Your task to perform on an android device: Search for a 100 ft extension cord Image 0: 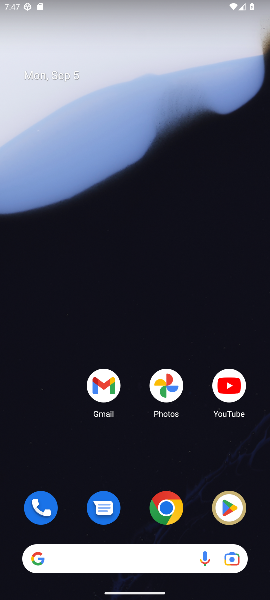
Step 0: click (162, 512)
Your task to perform on an android device: Search for a 100 ft extension cord Image 1: 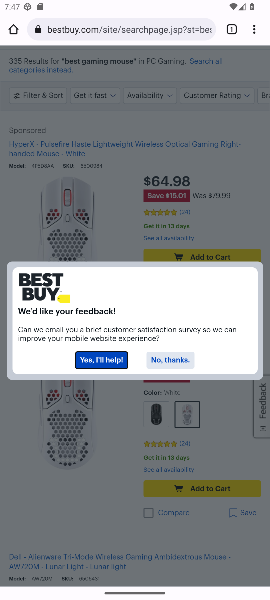
Step 1: click (168, 365)
Your task to perform on an android device: Search for a 100 ft extension cord Image 2: 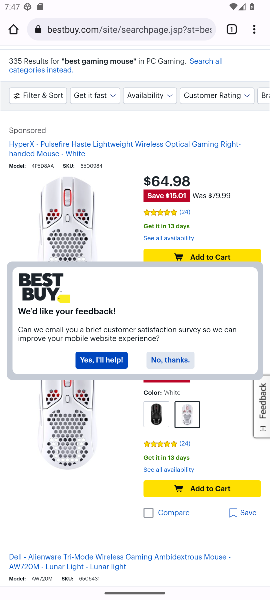
Step 2: click (114, 25)
Your task to perform on an android device: Search for a 100 ft extension cord Image 3: 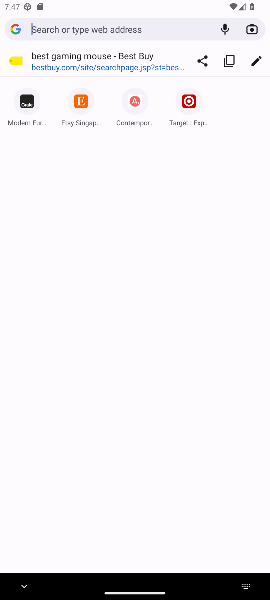
Step 3: type "100 ft extension cord"
Your task to perform on an android device: Search for a 100 ft extension cord Image 4: 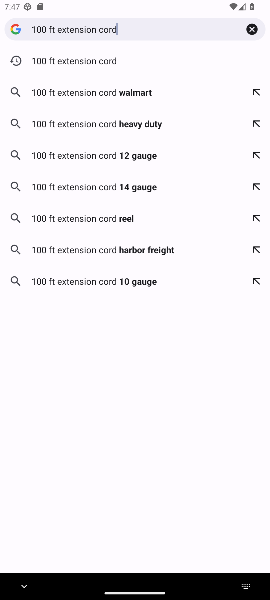
Step 4: click (60, 62)
Your task to perform on an android device: Search for a 100 ft extension cord Image 5: 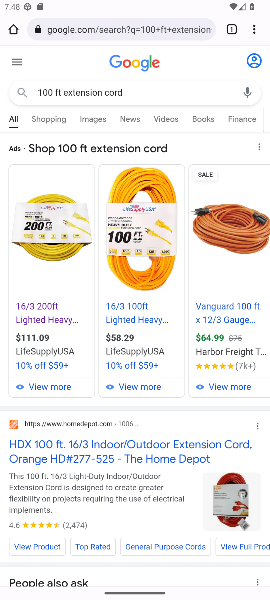
Step 5: click (99, 464)
Your task to perform on an android device: Search for a 100 ft extension cord Image 6: 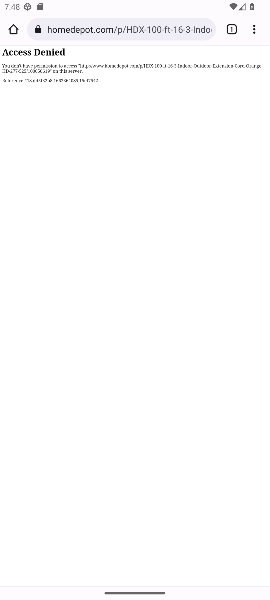
Step 6: task complete